Your task to perform on an android device: Open Google Chrome and open the bookmarks view Image 0: 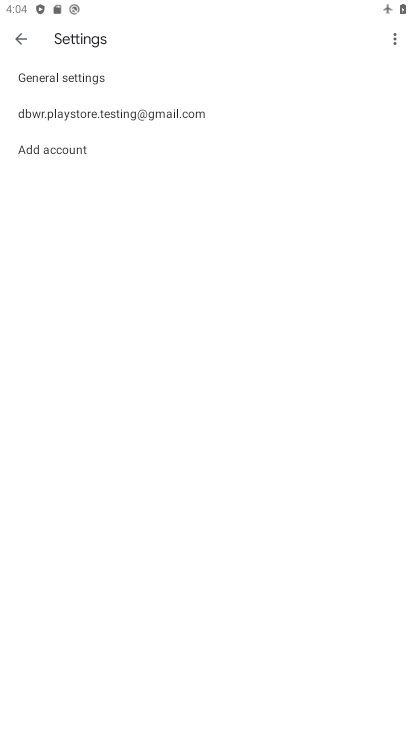
Step 0: press home button
Your task to perform on an android device: Open Google Chrome and open the bookmarks view Image 1: 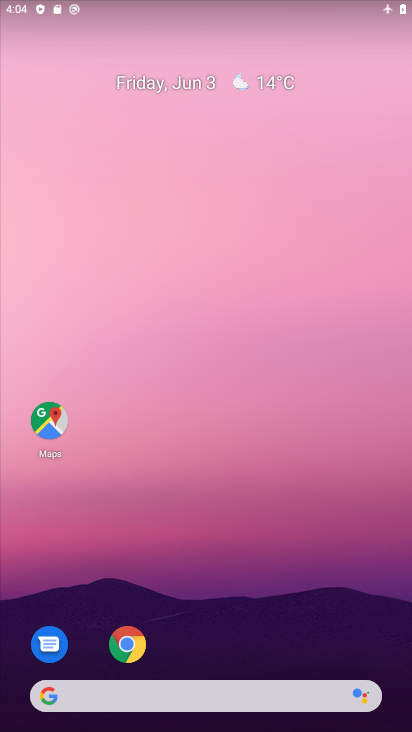
Step 1: click (124, 647)
Your task to perform on an android device: Open Google Chrome and open the bookmarks view Image 2: 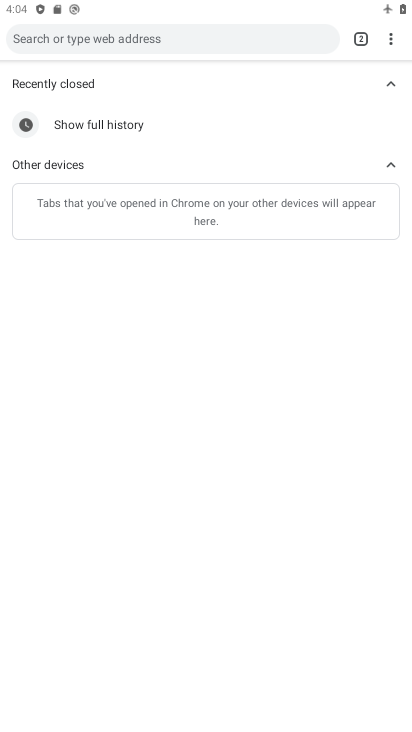
Step 2: click (395, 41)
Your task to perform on an android device: Open Google Chrome and open the bookmarks view Image 3: 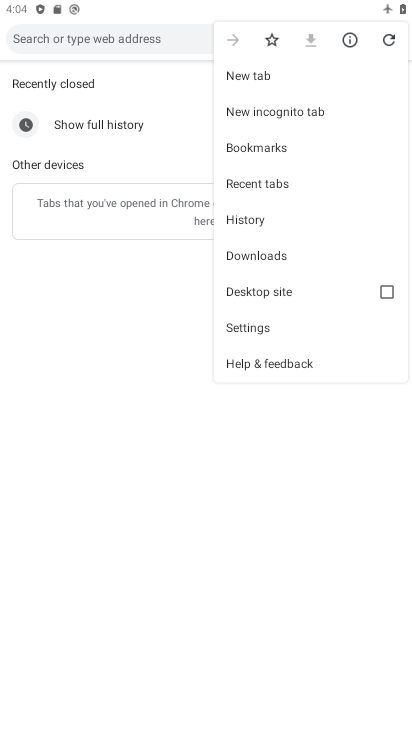
Step 3: click (249, 141)
Your task to perform on an android device: Open Google Chrome and open the bookmarks view Image 4: 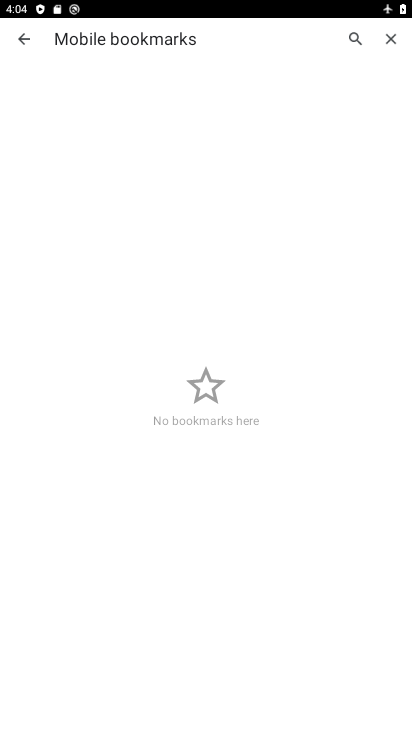
Step 4: task complete